Your task to perform on an android device: turn off data saver in the chrome app Image 0: 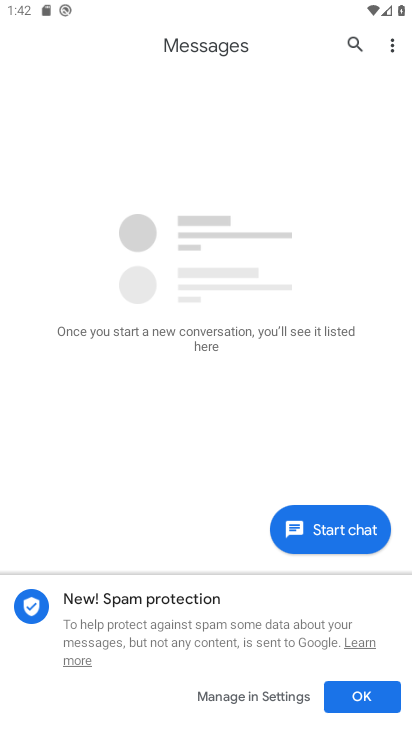
Step 0: press home button
Your task to perform on an android device: turn off data saver in the chrome app Image 1: 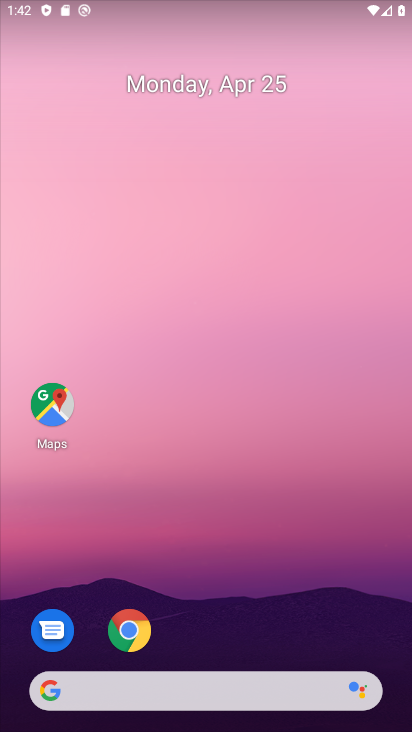
Step 1: click (142, 637)
Your task to perform on an android device: turn off data saver in the chrome app Image 2: 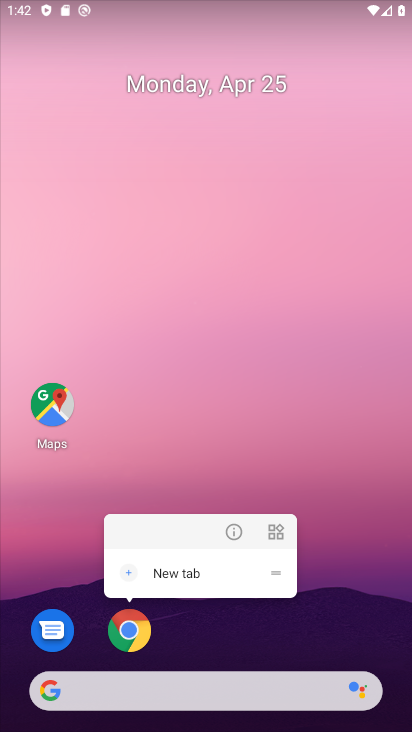
Step 2: click (127, 625)
Your task to perform on an android device: turn off data saver in the chrome app Image 3: 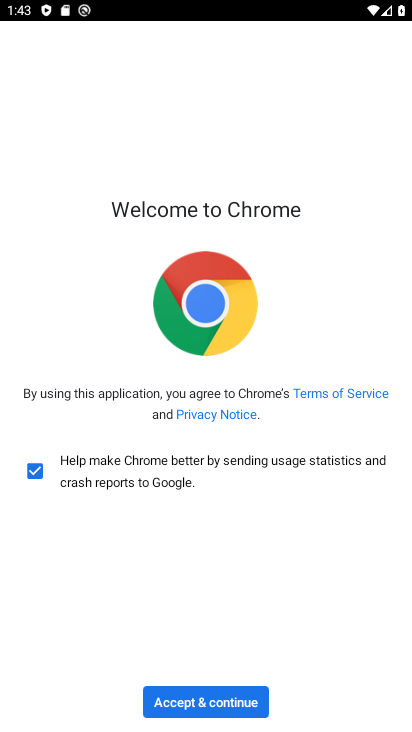
Step 3: click (217, 706)
Your task to perform on an android device: turn off data saver in the chrome app Image 4: 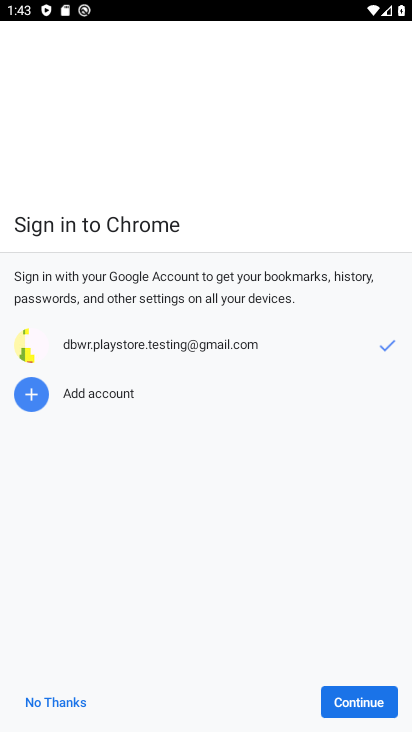
Step 4: click (338, 700)
Your task to perform on an android device: turn off data saver in the chrome app Image 5: 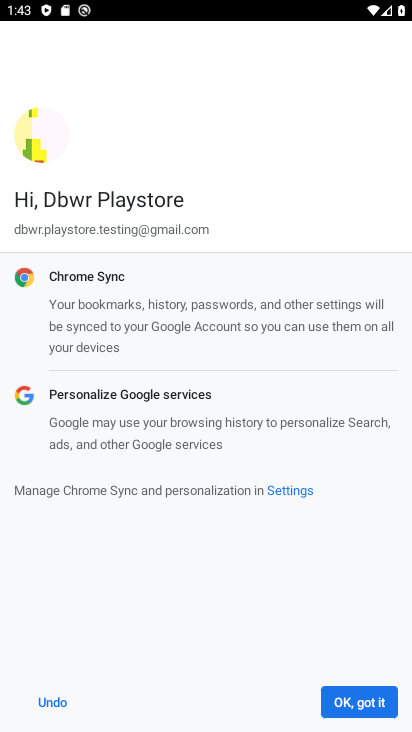
Step 5: click (338, 700)
Your task to perform on an android device: turn off data saver in the chrome app Image 6: 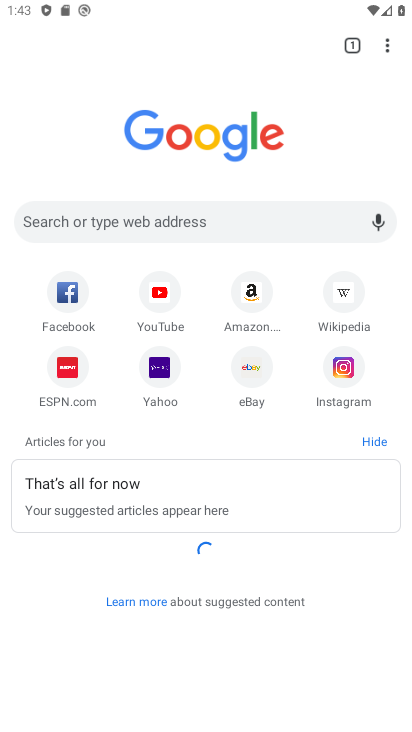
Step 6: click (386, 50)
Your task to perform on an android device: turn off data saver in the chrome app Image 7: 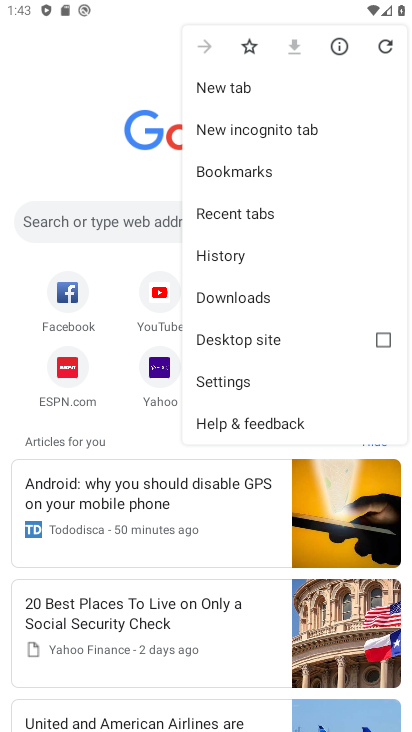
Step 7: click (272, 378)
Your task to perform on an android device: turn off data saver in the chrome app Image 8: 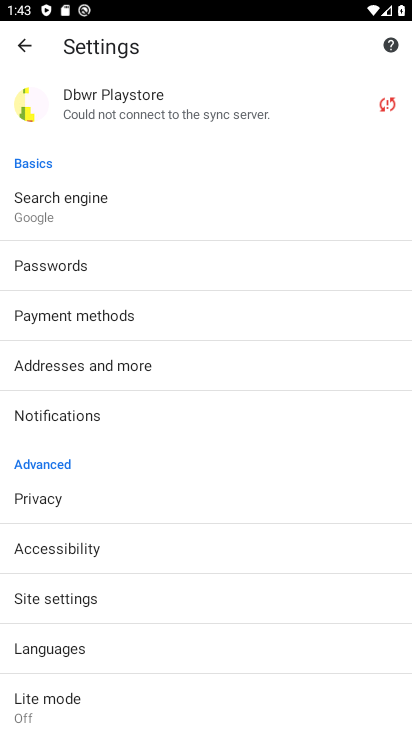
Step 8: click (58, 703)
Your task to perform on an android device: turn off data saver in the chrome app Image 9: 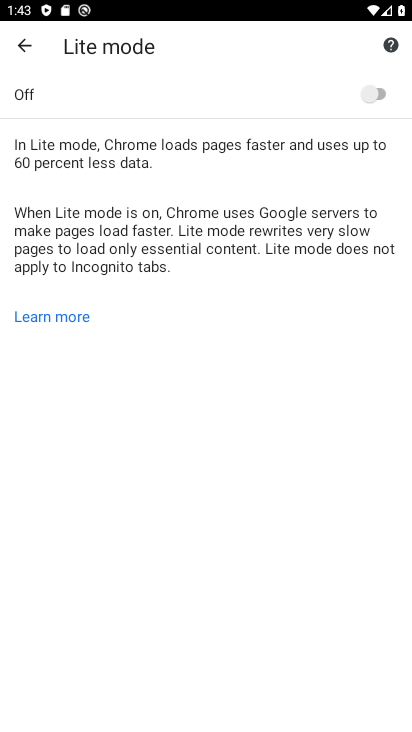
Step 9: task complete